Your task to perform on an android device: change the clock style Image 0: 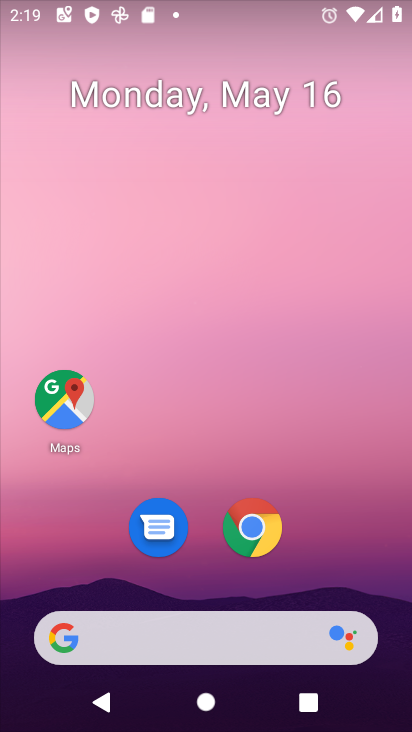
Step 0: drag from (371, 548) to (321, 47)
Your task to perform on an android device: change the clock style Image 1: 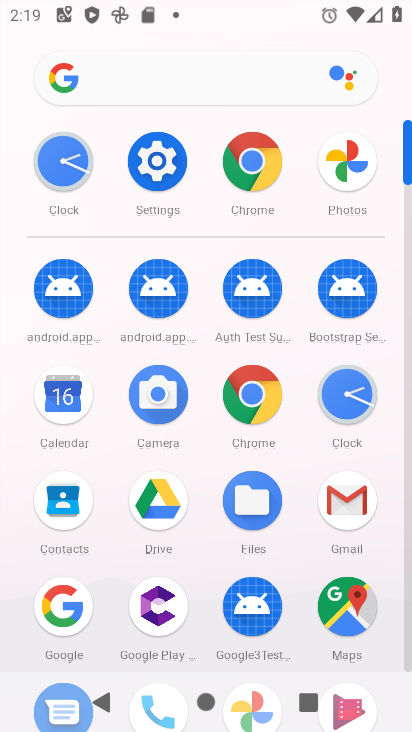
Step 1: click (44, 190)
Your task to perform on an android device: change the clock style Image 2: 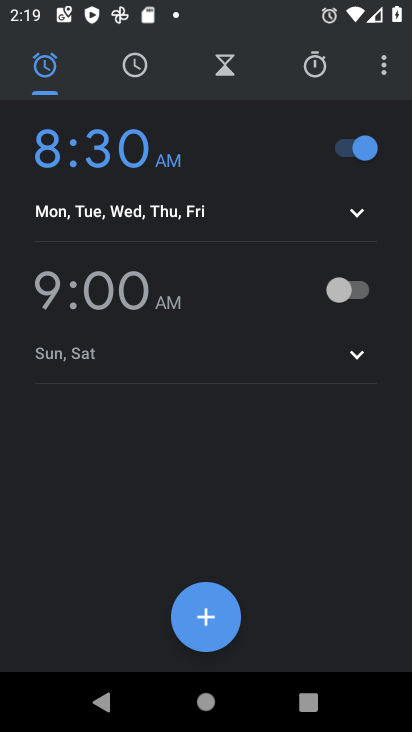
Step 2: click (378, 79)
Your task to perform on an android device: change the clock style Image 3: 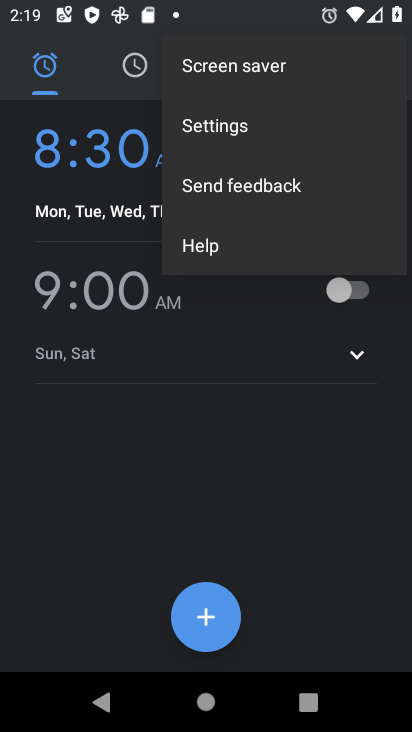
Step 3: click (293, 143)
Your task to perform on an android device: change the clock style Image 4: 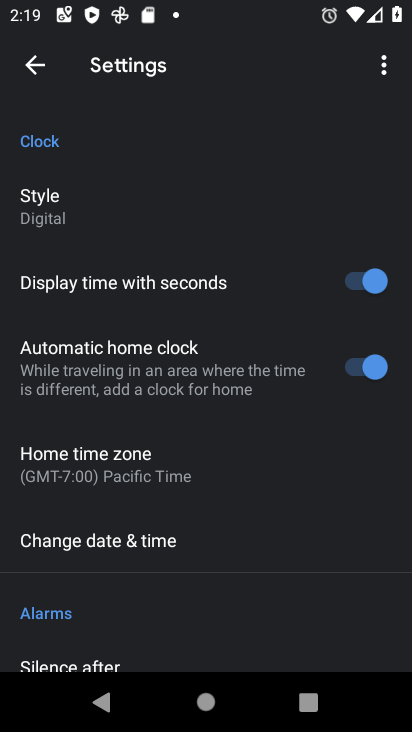
Step 4: click (112, 215)
Your task to perform on an android device: change the clock style Image 5: 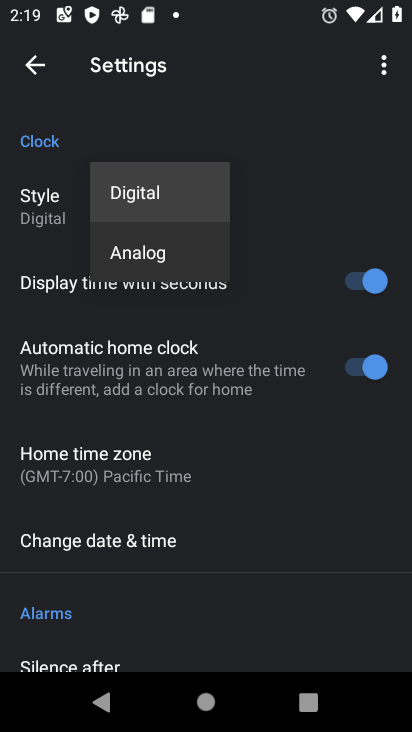
Step 5: click (156, 241)
Your task to perform on an android device: change the clock style Image 6: 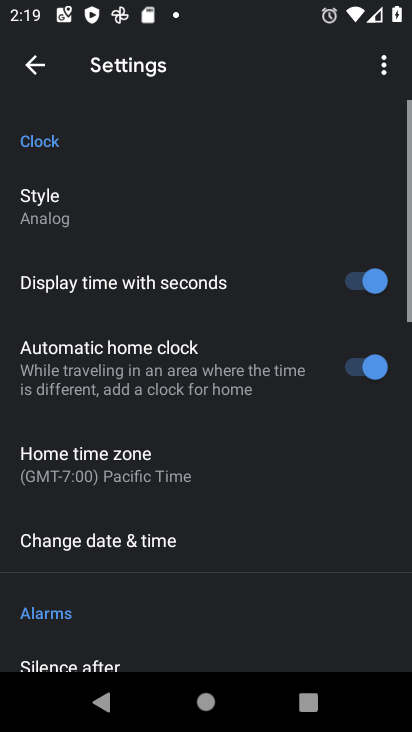
Step 6: task complete